Your task to perform on an android device: What's on my calendar today? Image 0: 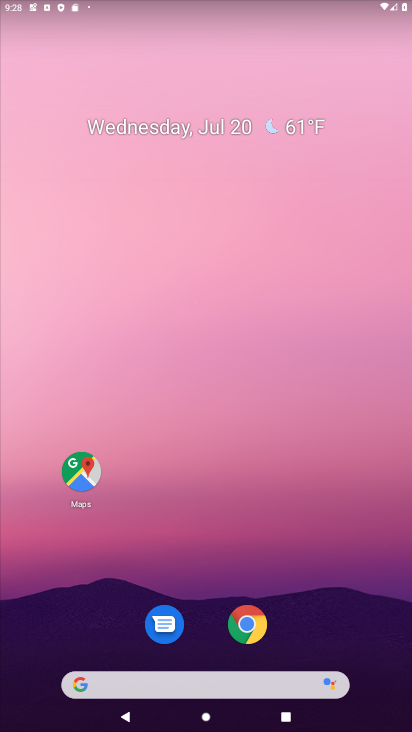
Step 0: drag from (211, 574) to (217, 194)
Your task to perform on an android device: What's on my calendar today? Image 1: 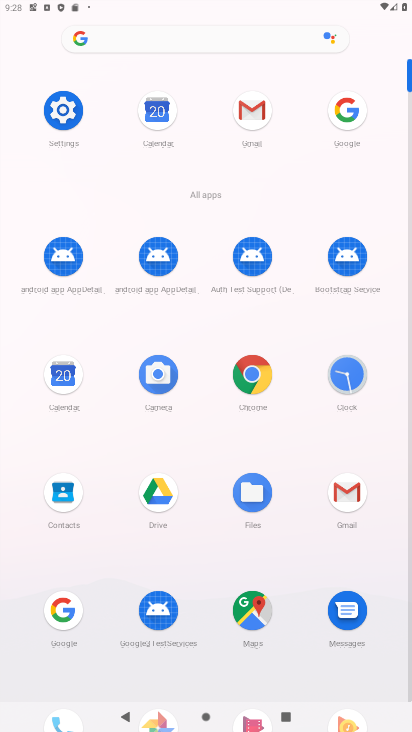
Step 1: click (165, 118)
Your task to perform on an android device: What's on my calendar today? Image 2: 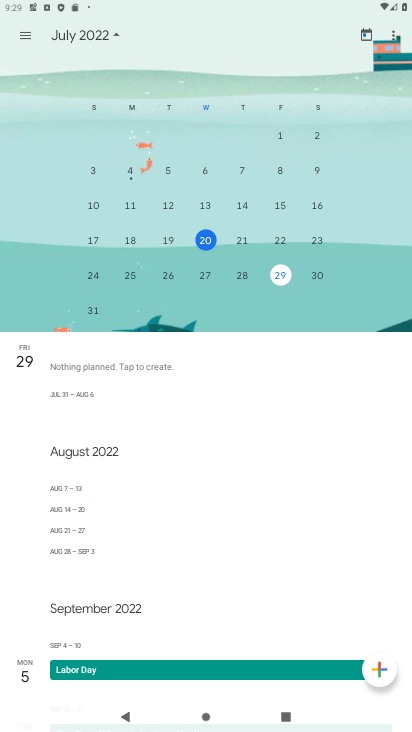
Step 2: click (214, 237)
Your task to perform on an android device: What's on my calendar today? Image 3: 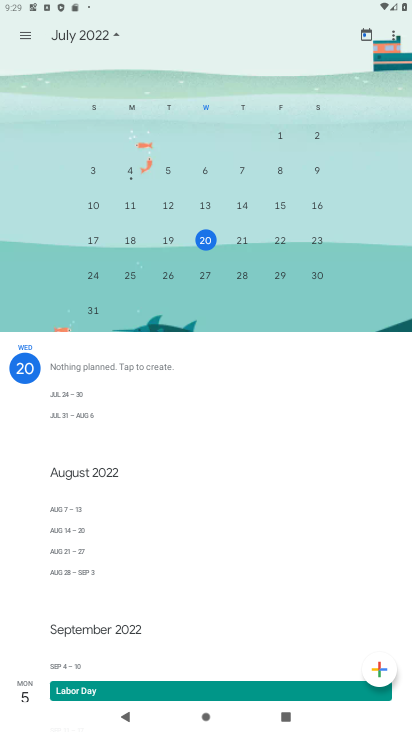
Step 3: task complete